Your task to perform on an android device: Go to Maps Image 0: 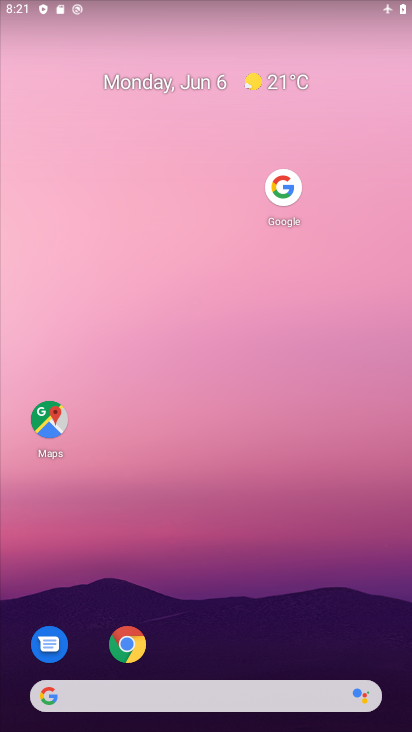
Step 0: click (38, 410)
Your task to perform on an android device: Go to Maps Image 1: 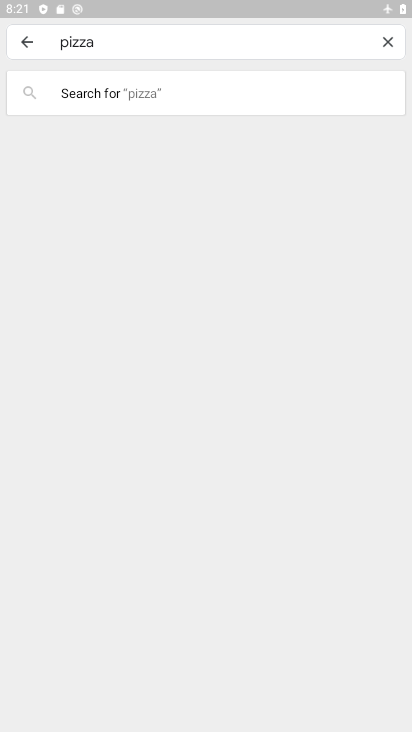
Step 1: click (40, 40)
Your task to perform on an android device: Go to Maps Image 2: 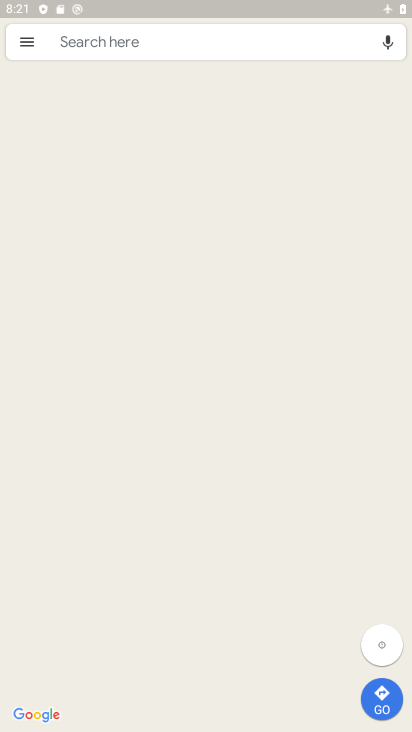
Step 2: task complete